Your task to perform on an android device: Turn off the flashlight Image 0: 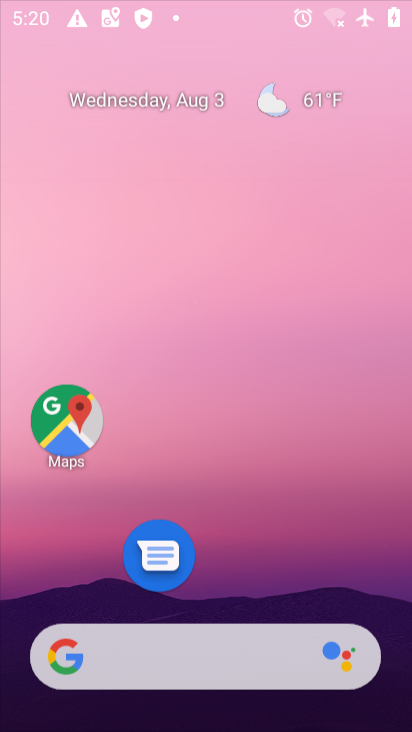
Step 0: drag from (223, 430) to (231, 77)
Your task to perform on an android device: Turn off the flashlight Image 1: 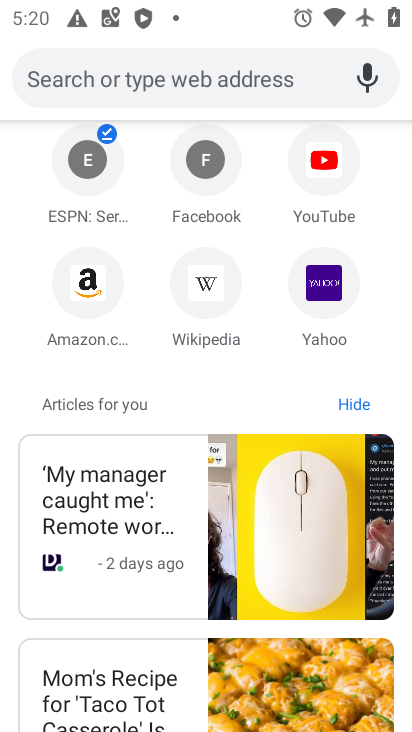
Step 1: drag from (237, 0) to (240, 432)
Your task to perform on an android device: Turn off the flashlight Image 2: 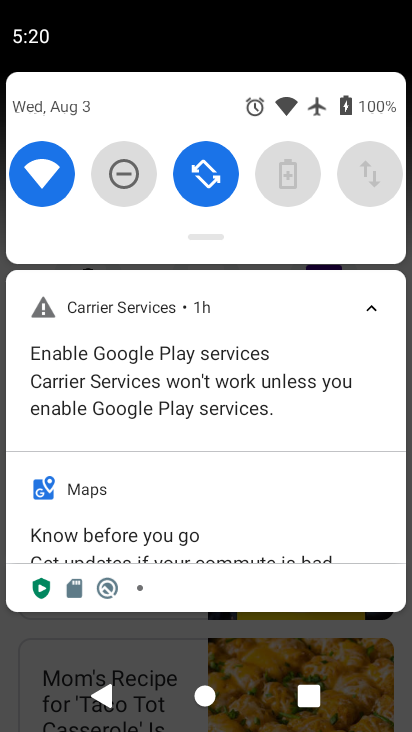
Step 2: drag from (237, 190) to (230, 544)
Your task to perform on an android device: Turn off the flashlight Image 3: 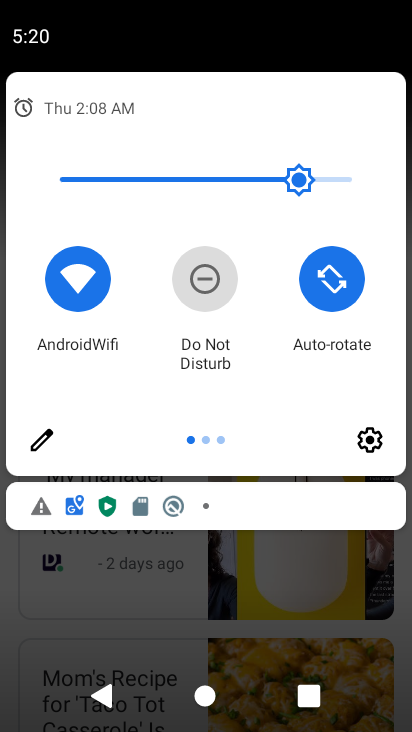
Step 3: drag from (365, 345) to (9, 339)
Your task to perform on an android device: Turn off the flashlight Image 4: 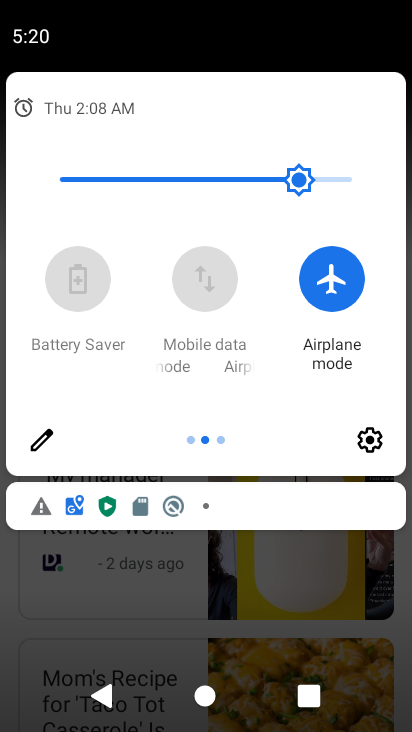
Step 4: click (329, 284)
Your task to perform on an android device: Turn off the flashlight Image 5: 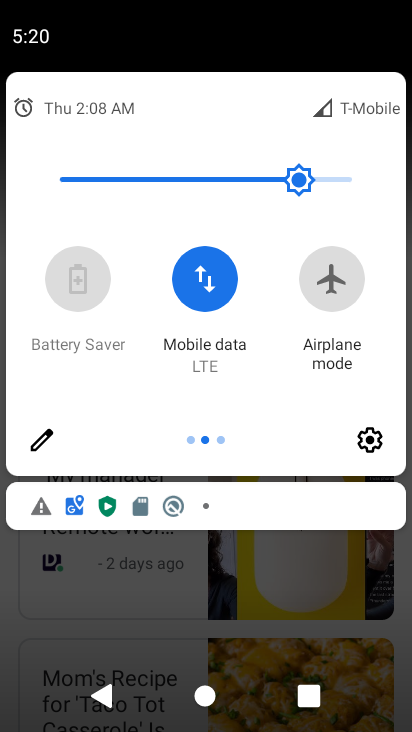
Step 5: task complete